Your task to perform on an android device: turn on airplane mode Image 0: 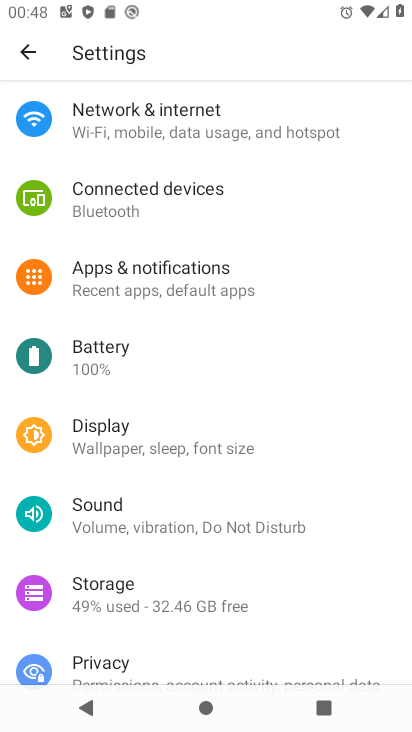
Step 0: click (140, 120)
Your task to perform on an android device: turn on airplane mode Image 1: 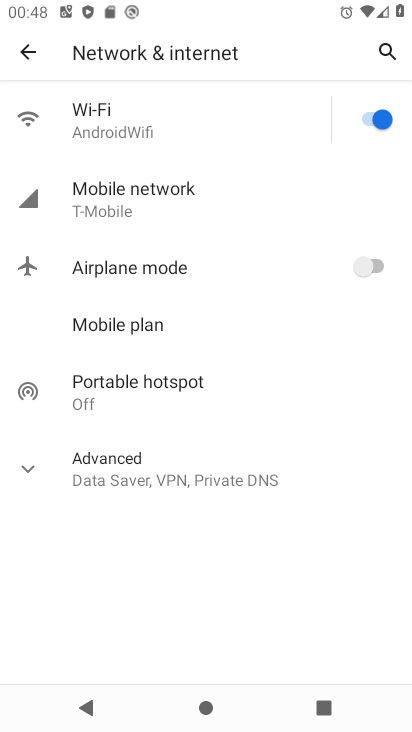
Step 1: click (354, 264)
Your task to perform on an android device: turn on airplane mode Image 2: 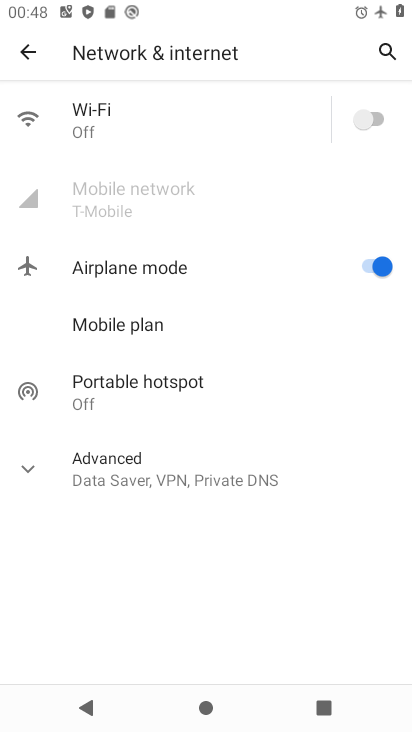
Step 2: task complete